Your task to perform on an android device: Add alienware aurora to the cart on target Image 0: 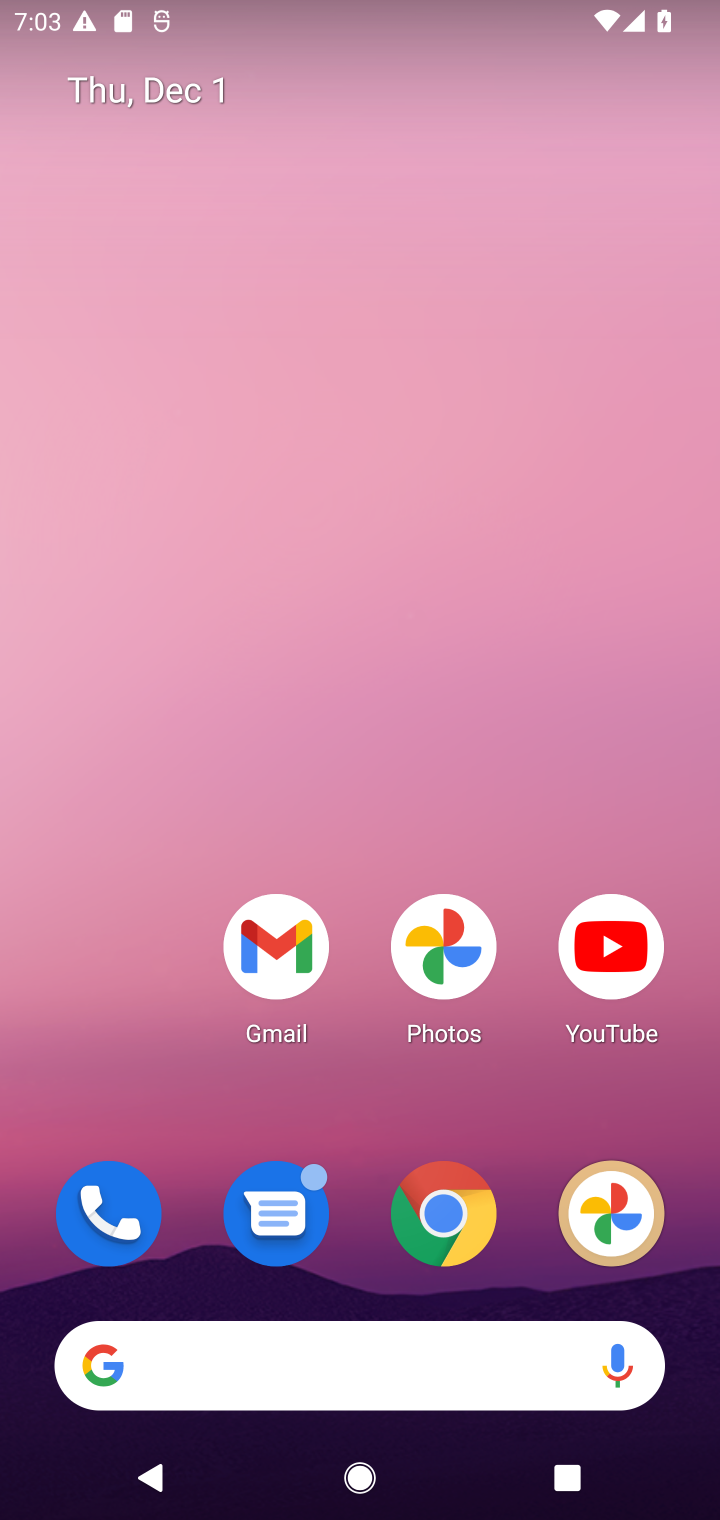
Step 0: click (335, 1351)
Your task to perform on an android device: Add alienware aurora to the cart on target Image 1: 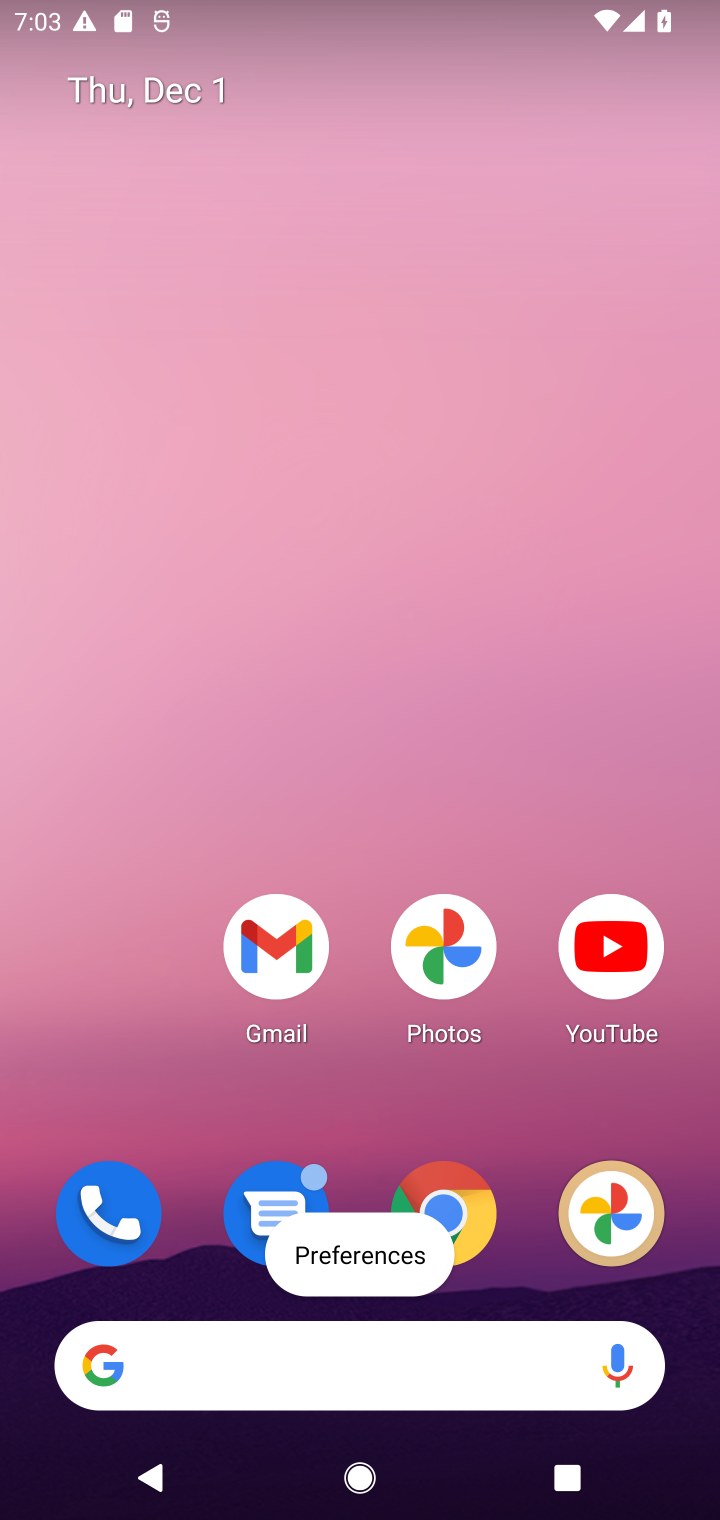
Step 1: type "target"
Your task to perform on an android device: Add alienware aurora to the cart on target Image 2: 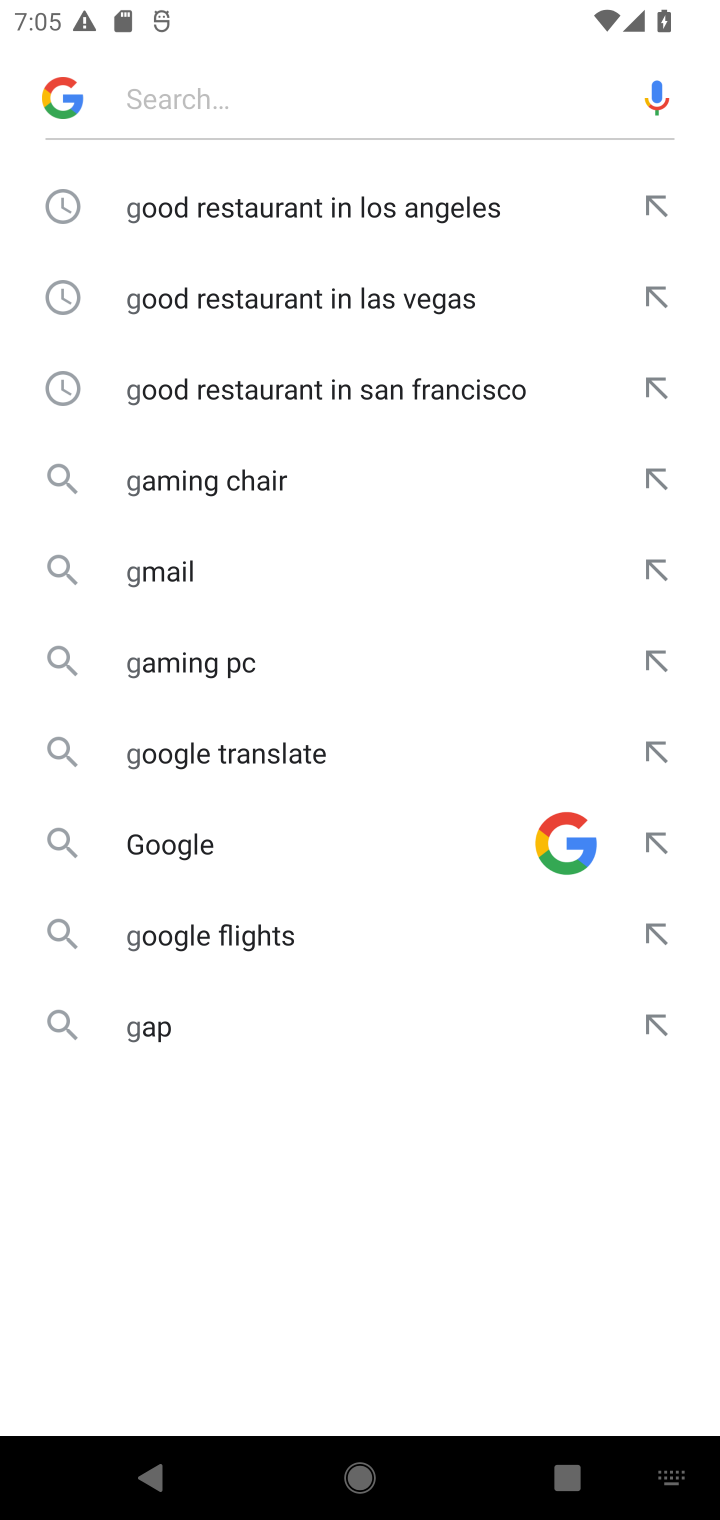
Step 2: task complete